Your task to perform on an android device: Open settings on Google Maps Image 0: 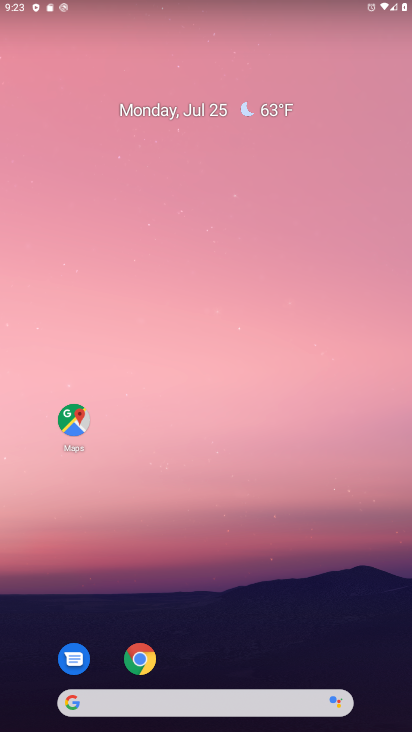
Step 0: drag from (221, 726) to (226, 180)
Your task to perform on an android device: Open settings on Google Maps Image 1: 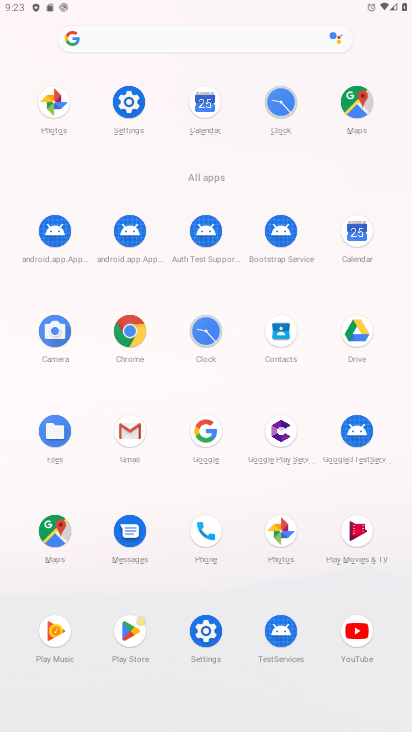
Step 1: click (55, 527)
Your task to perform on an android device: Open settings on Google Maps Image 2: 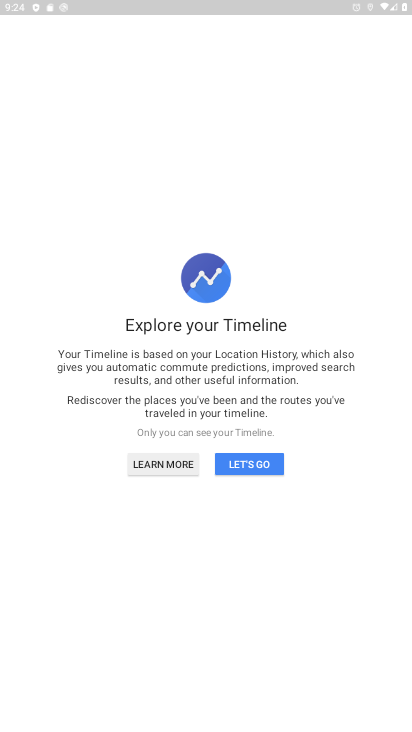
Step 2: click (234, 463)
Your task to perform on an android device: Open settings on Google Maps Image 3: 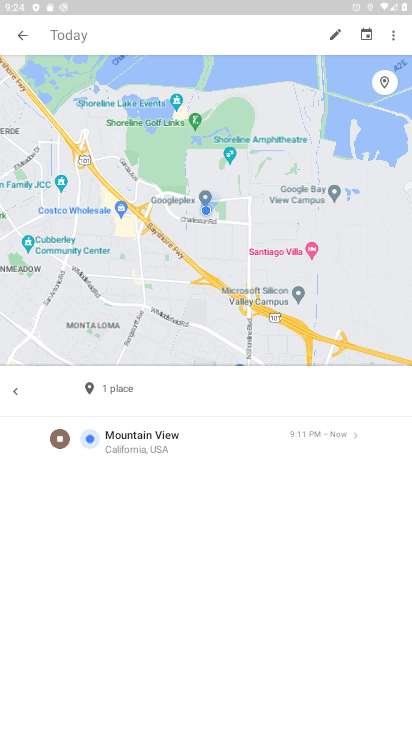
Step 3: click (22, 36)
Your task to perform on an android device: Open settings on Google Maps Image 4: 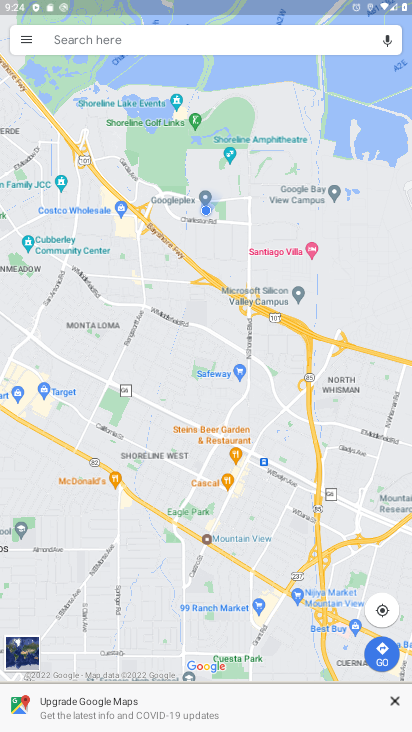
Step 4: click (20, 31)
Your task to perform on an android device: Open settings on Google Maps Image 5: 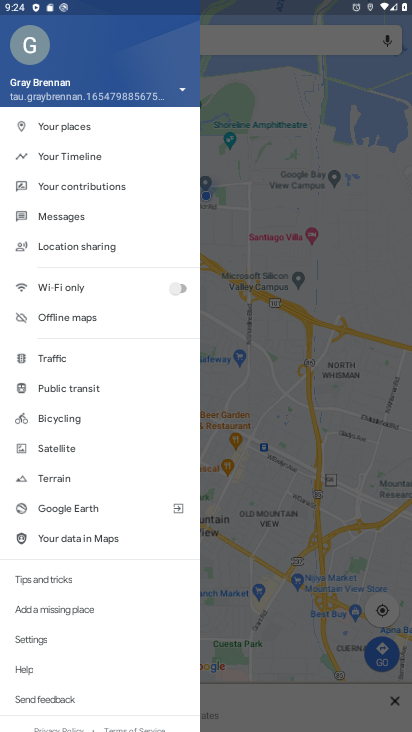
Step 5: click (29, 640)
Your task to perform on an android device: Open settings on Google Maps Image 6: 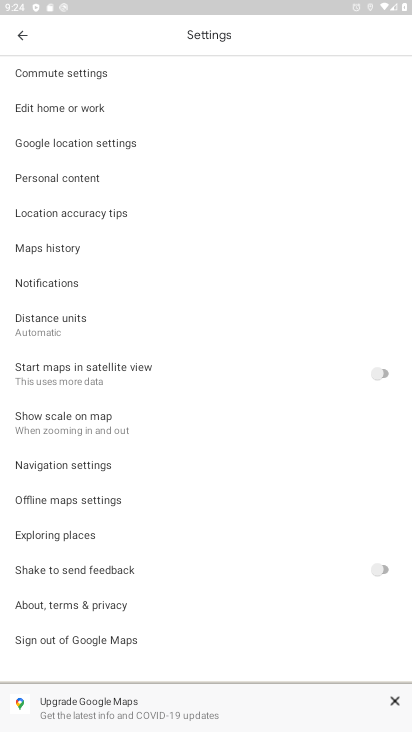
Step 6: task complete